Your task to perform on an android device: create a new album in the google photos Image 0: 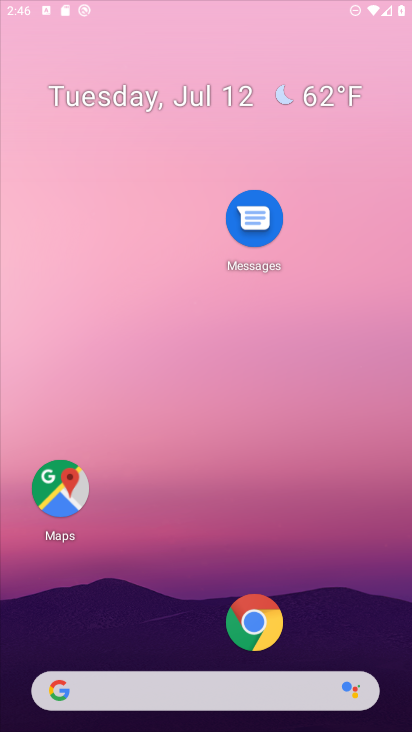
Step 0: press home button
Your task to perform on an android device: create a new album in the google photos Image 1: 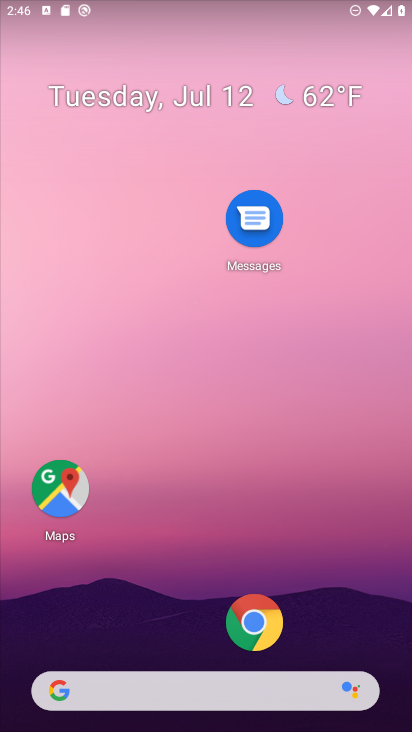
Step 1: drag from (184, 654) to (243, 196)
Your task to perform on an android device: create a new album in the google photos Image 2: 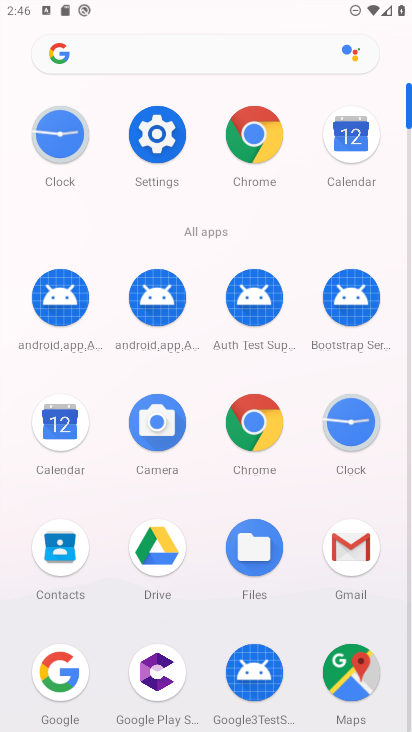
Step 2: drag from (197, 636) to (229, 120)
Your task to perform on an android device: create a new album in the google photos Image 3: 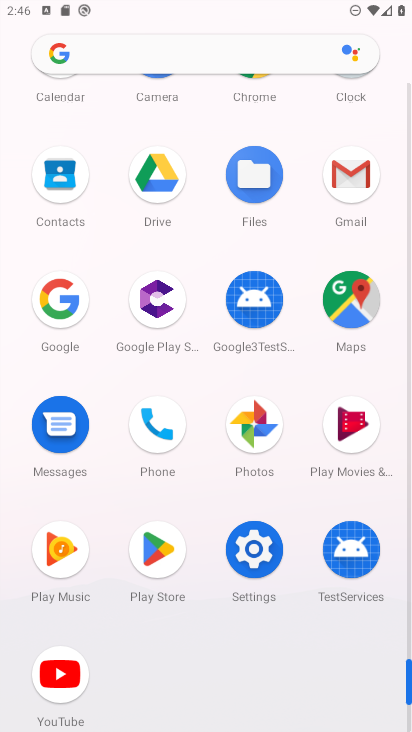
Step 3: click (251, 416)
Your task to perform on an android device: create a new album in the google photos Image 4: 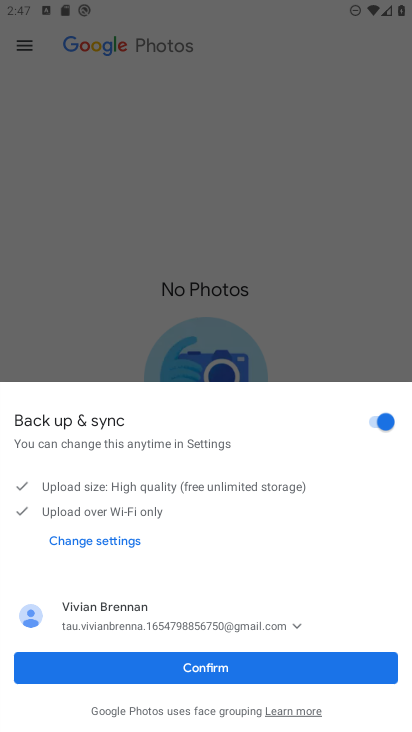
Step 4: click (209, 664)
Your task to perform on an android device: create a new album in the google photos Image 5: 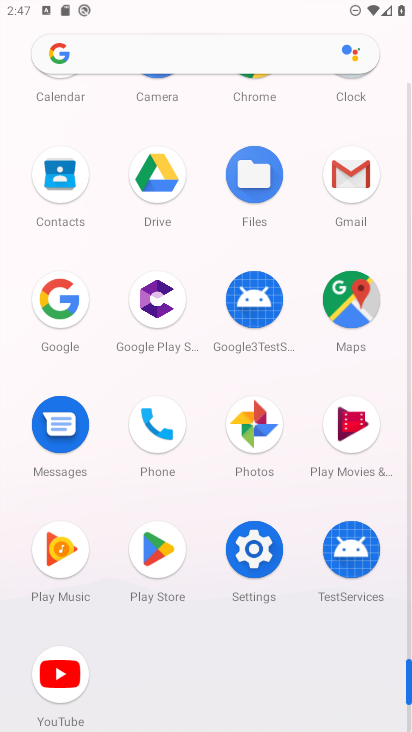
Step 5: click (257, 418)
Your task to perform on an android device: create a new album in the google photos Image 6: 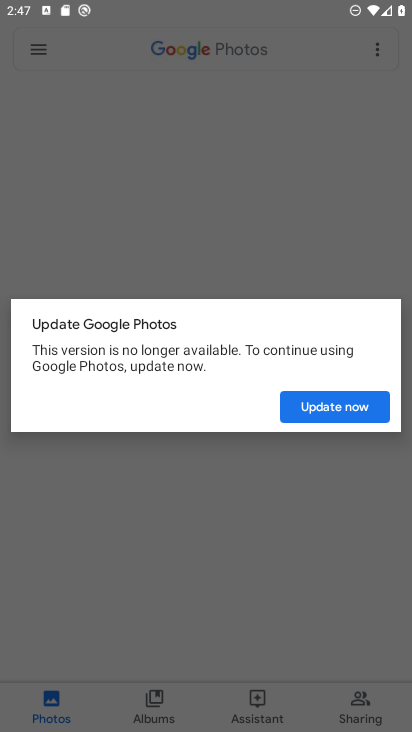
Step 6: click (338, 409)
Your task to perform on an android device: create a new album in the google photos Image 7: 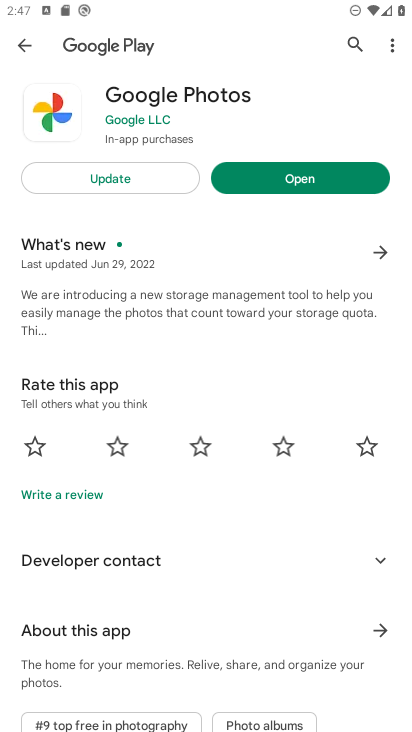
Step 7: click (118, 174)
Your task to perform on an android device: create a new album in the google photos Image 8: 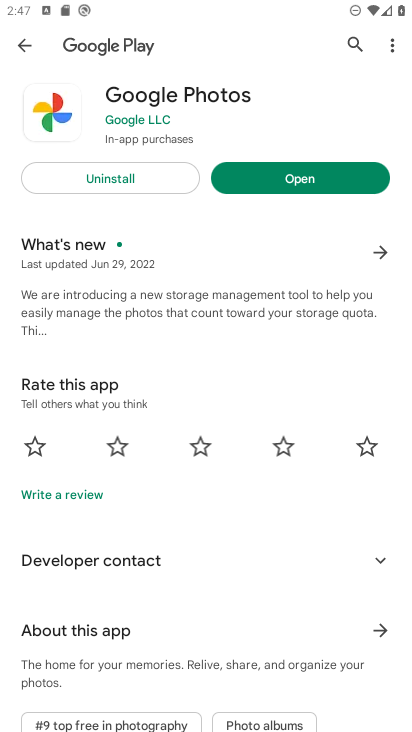
Step 8: click (311, 181)
Your task to perform on an android device: create a new album in the google photos Image 9: 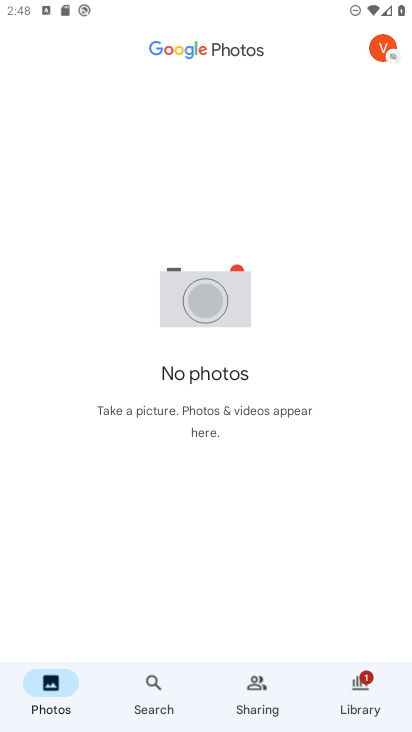
Step 9: click (253, 687)
Your task to perform on an android device: create a new album in the google photos Image 10: 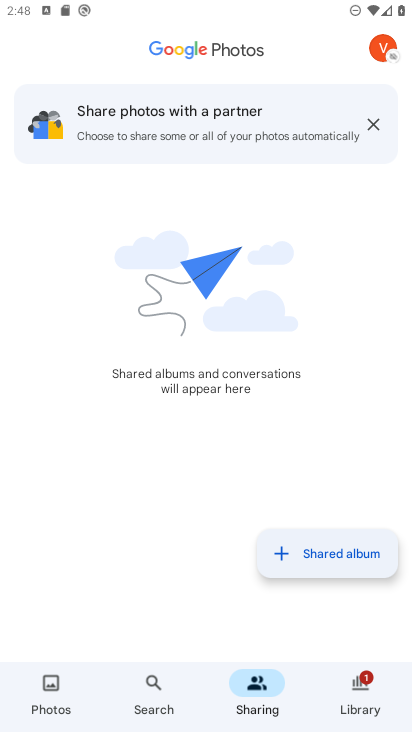
Step 10: click (287, 552)
Your task to perform on an android device: create a new album in the google photos Image 11: 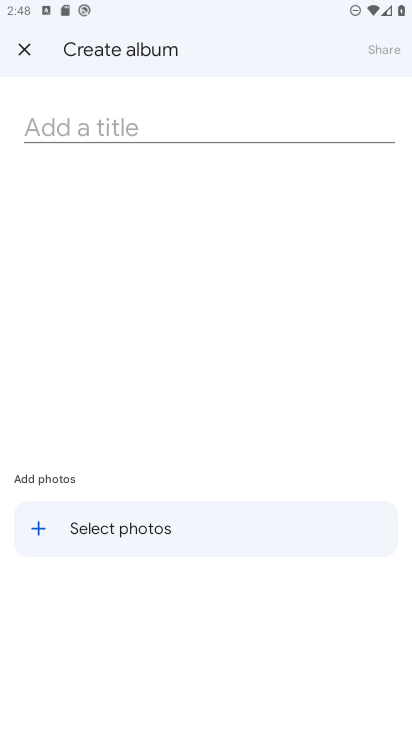
Step 11: click (41, 527)
Your task to perform on an android device: create a new album in the google photos Image 12: 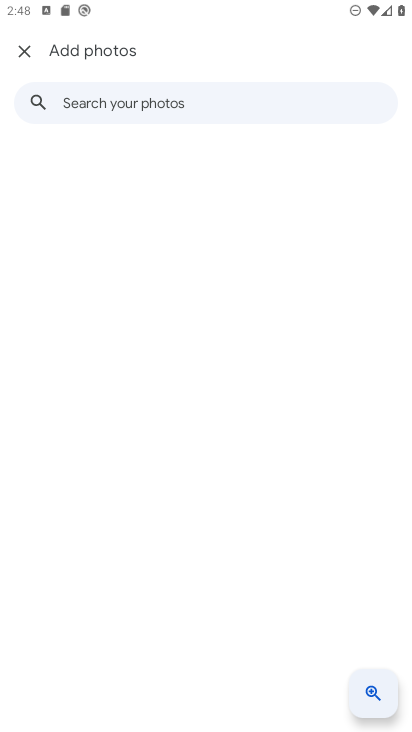
Step 12: task complete